Your task to perform on an android device: check android version Image 0: 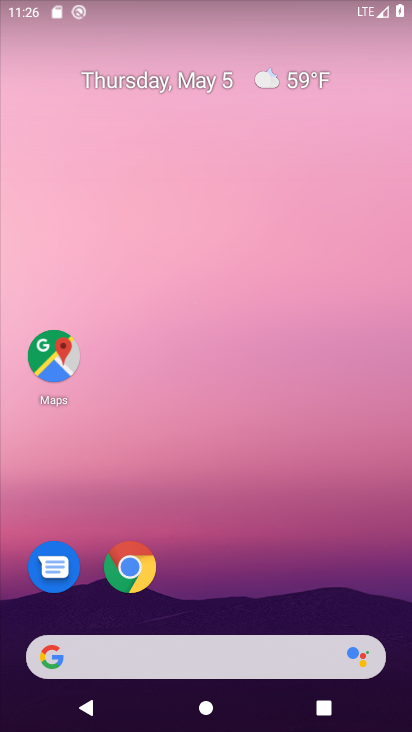
Step 0: drag from (355, 594) to (345, 5)
Your task to perform on an android device: check android version Image 1: 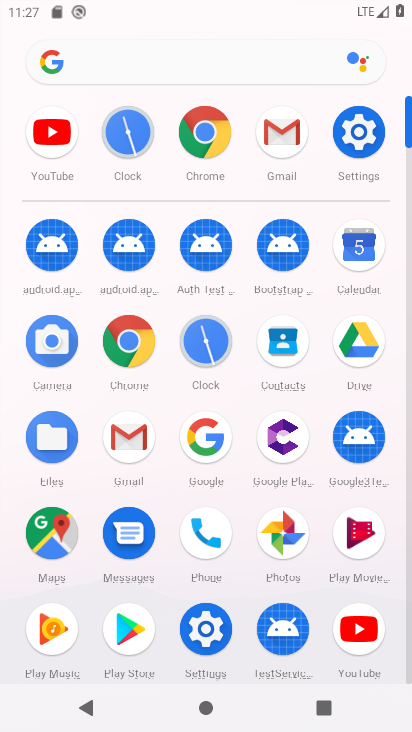
Step 1: click (360, 127)
Your task to perform on an android device: check android version Image 2: 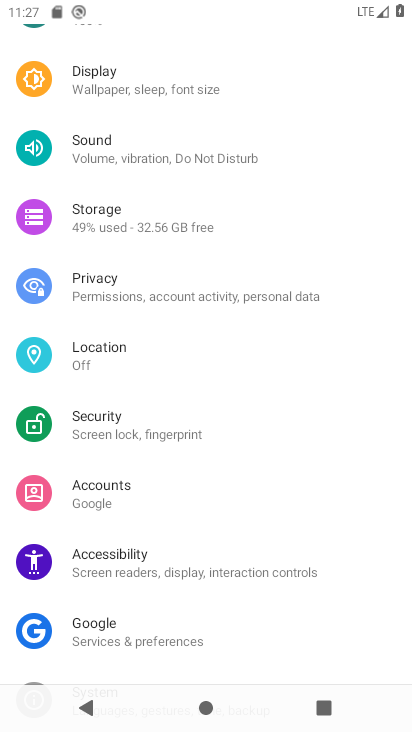
Step 2: drag from (308, 532) to (285, 159)
Your task to perform on an android device: check android version Image 3: 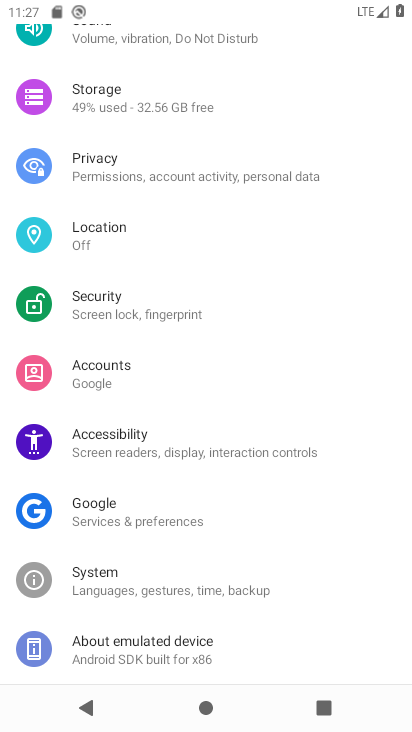
Step 3: click (139, 643)
Your task to perform on an android device: check android version Image 4: 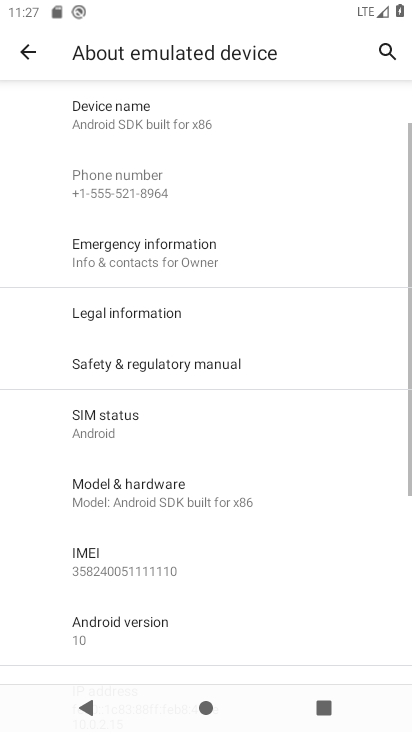
Step 4: click (96, 620)
Your task to perform on an android device: check android version Image 5: 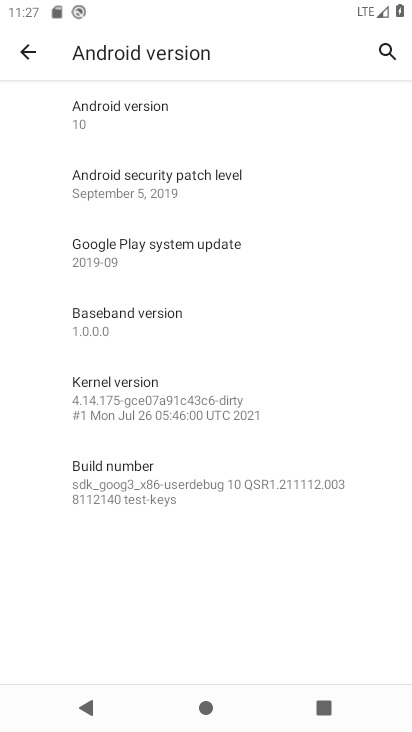
Step 5: task complete